Your task to perform on an android device: open chrome privacy settings Image 0: 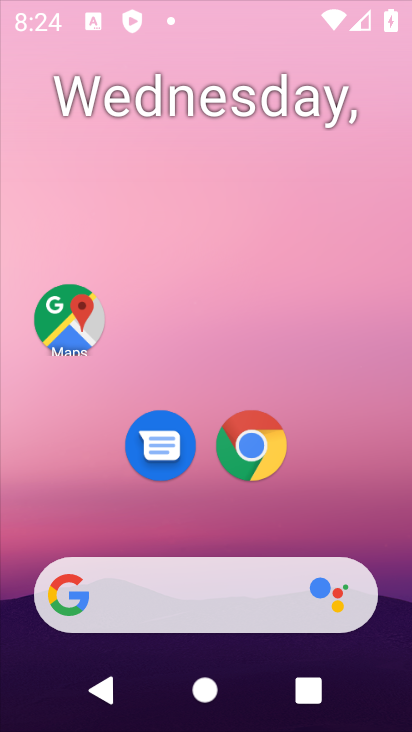
Step 0: drag from (344, 521) to (347, 29)
Your task to perform on an android device: open chrome privacy settings Image 1: 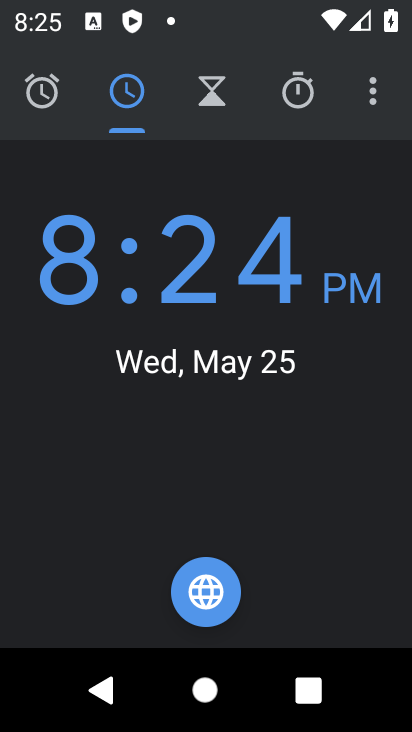
Step 1: press home button
Your task to perform on an android device: open chrome privacy settings Image 2: 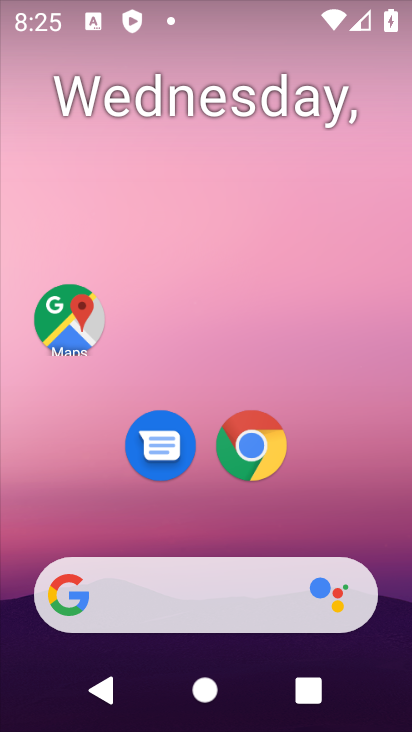
Step 2: drag from (391, 493) to (410, 33)
Your task to perform on an android device: open chrome privacy settings Image 3: 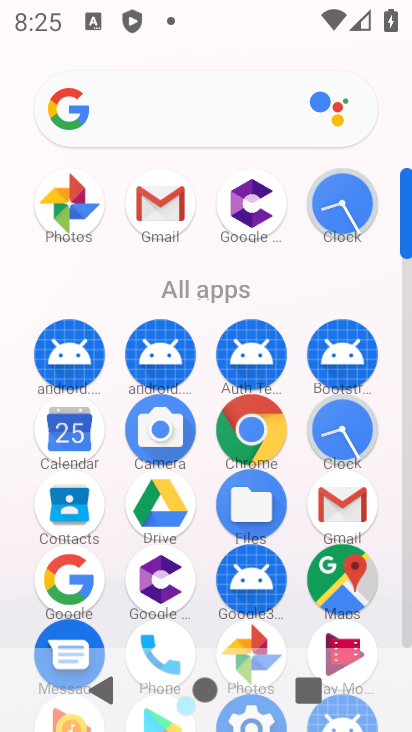
Step 3: click (257, 440)
Your task to perform on an android device: open chrome privacy settings Image 4: 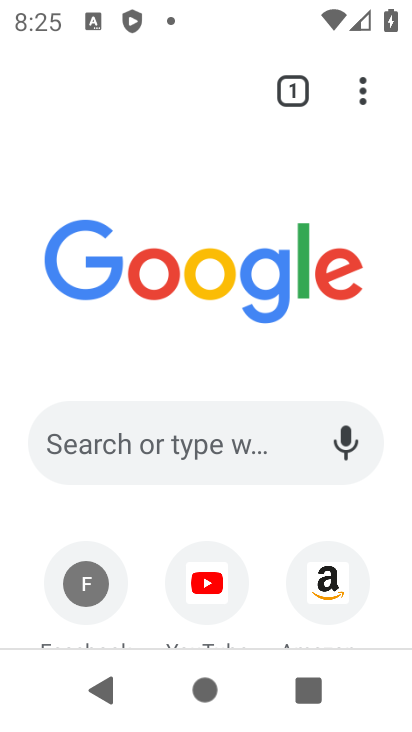
Step 4: drag from (361, 87) to (191, 494)
Your task to perform on an android device: open chrome privacy settings Image 5: 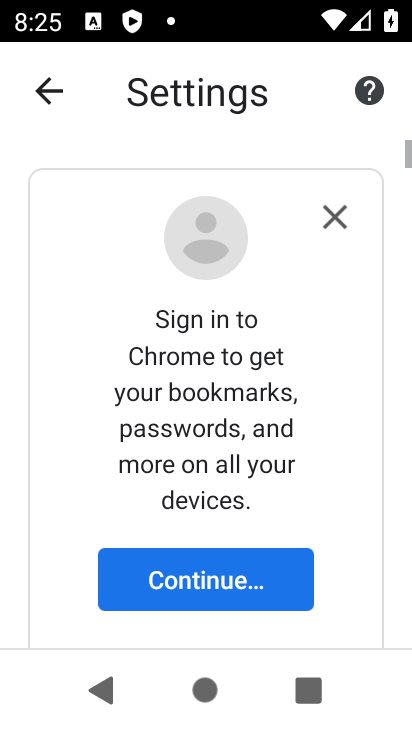
Step 5: drag from (204, 583) to (203, 163)
Your task to perform on an android device: open chrome privacy settings Image 6: 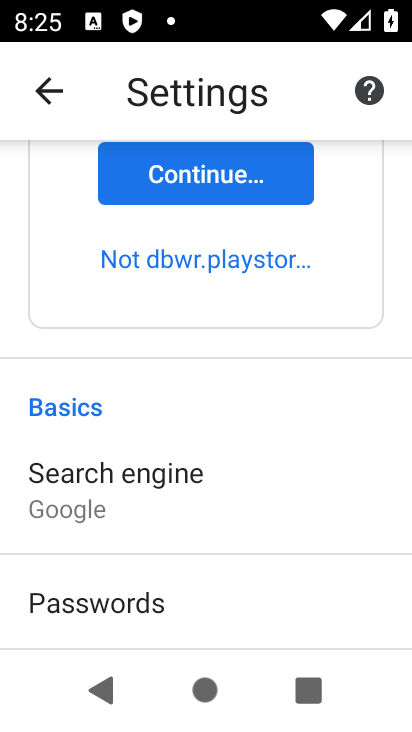
Step 6: drag from (211, 560) to (256, 156)
Your task to perform on an android device: open chrome privacy settings Image 7: 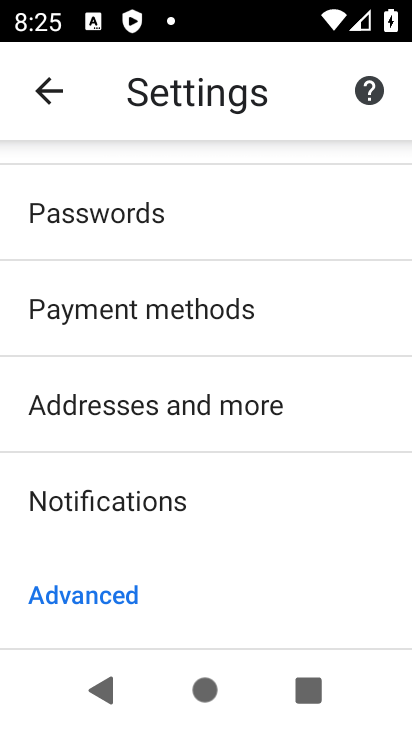
Step 7: drag from (214, 596) to (227, 244)
Your task to perform on an android device: open chrome privacy settings Image 8: 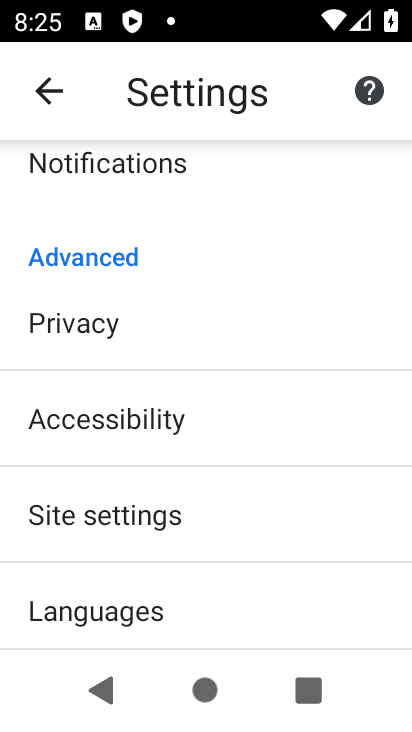
Step 8: click (140, 335)
Your task to perform on an android device: open chrome privacy settings Image 9: 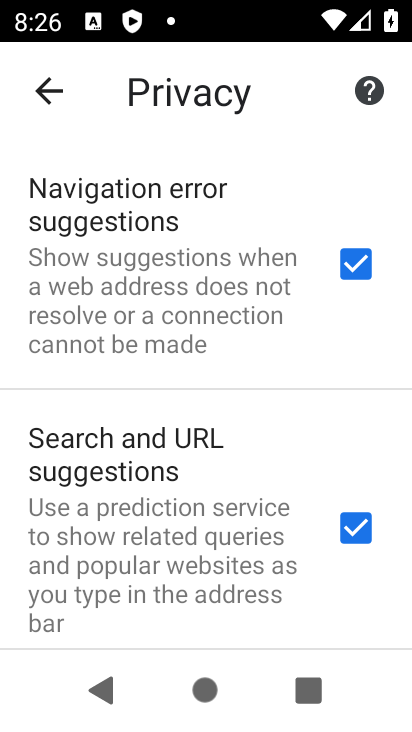
Step 9: task complete